Your task to perform on an android device: turn off data saver in the chrome app Image 0: 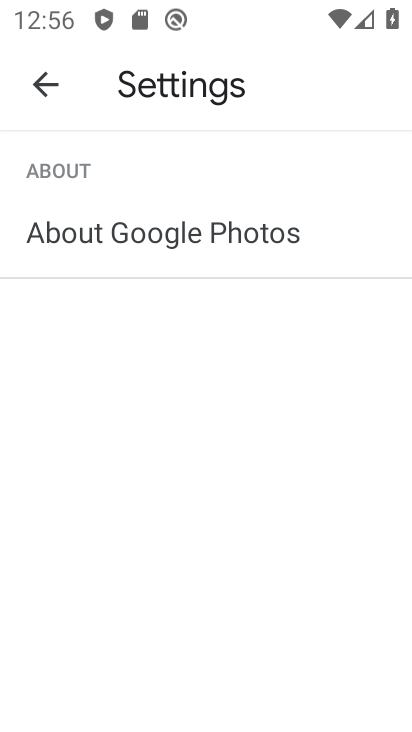
Step 0: press home button
Your task to perform on an android device: turn off data saver in the chrome app Image 1: 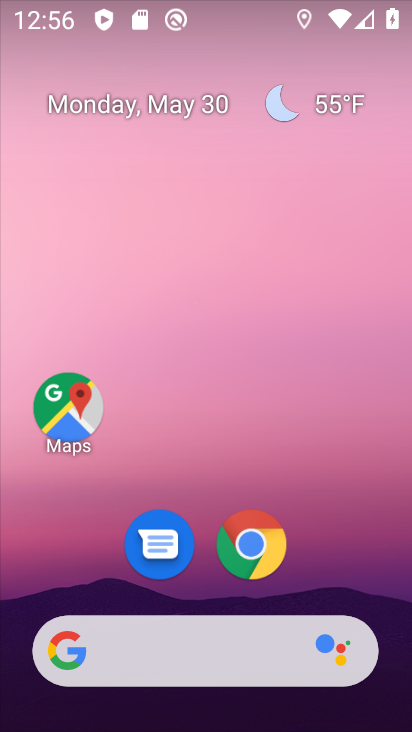
Step 1: click (261, 549)
Your task to perform on an android device: turn off data saver in the chrome app Image 2: 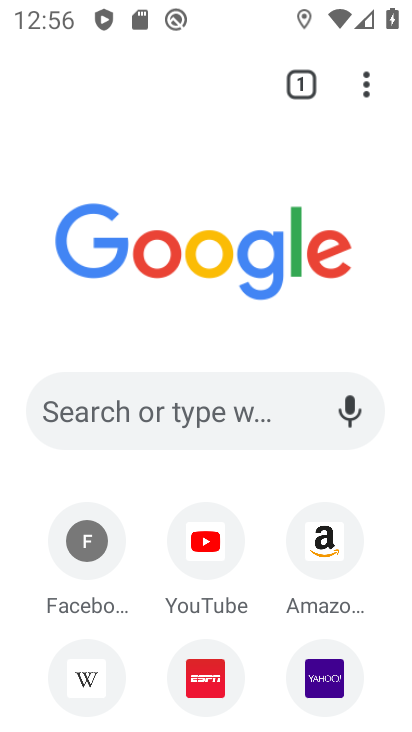
Step 2: click (385, 84)
Your task to perform on an android device: turn off data saver in the chrome app Image 3: 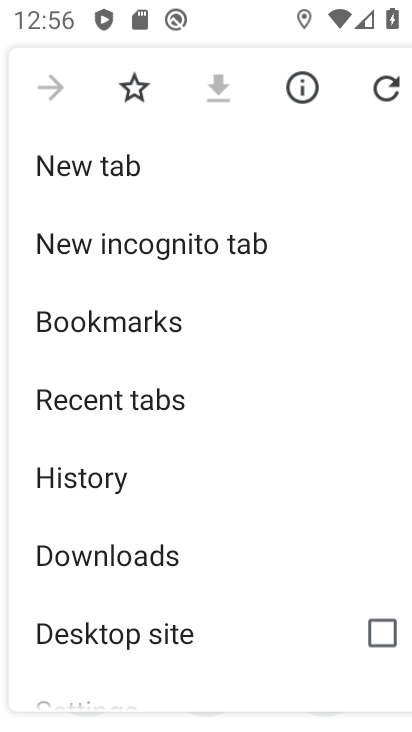
Step 3: drag from (291, 474) to (287, 115)
Your task to perform on an android device: turn off data saver in the chrome app Image 4: 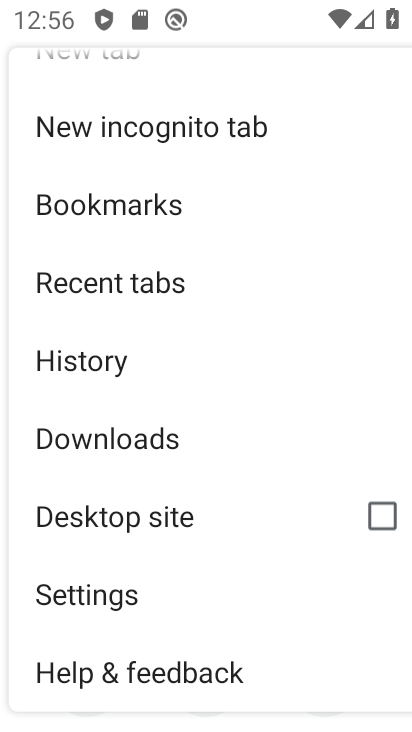
Step 4: click (188, 604)
Your task to perform on an android device: turn off data saver in the chrome app Image 5: 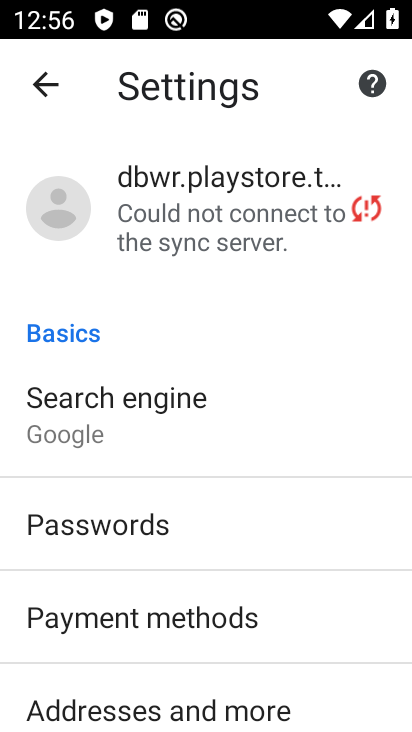
Step 5: drag from (195, 582) to (194, 192)
Your task to perform on an android device: turn off data saver in the chrome app Image 6: 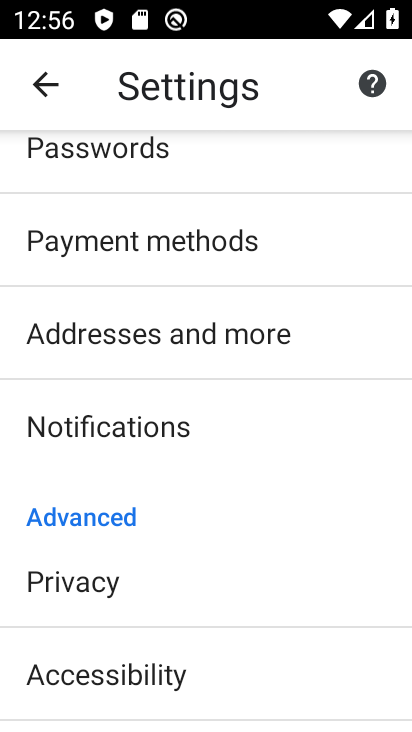
Step 6: drag from (198, 617) to (180, 298)
Your task to perform on an android device: turn off data saver in the chrome app Image 7: 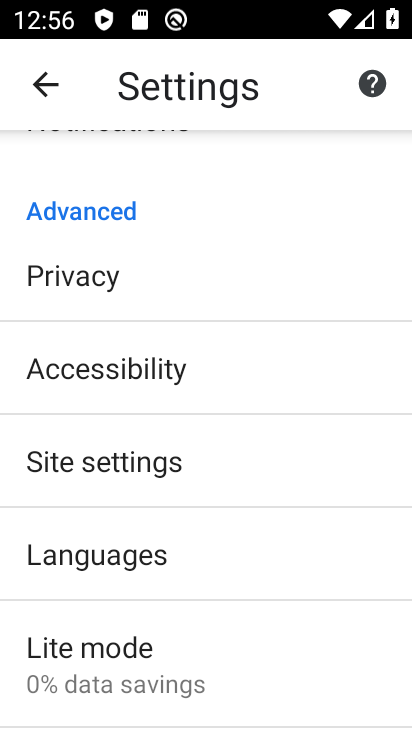
Step 7: click (152, 655)
Your task to perform on an android device: turn off data saver in the chrome app Image 8: 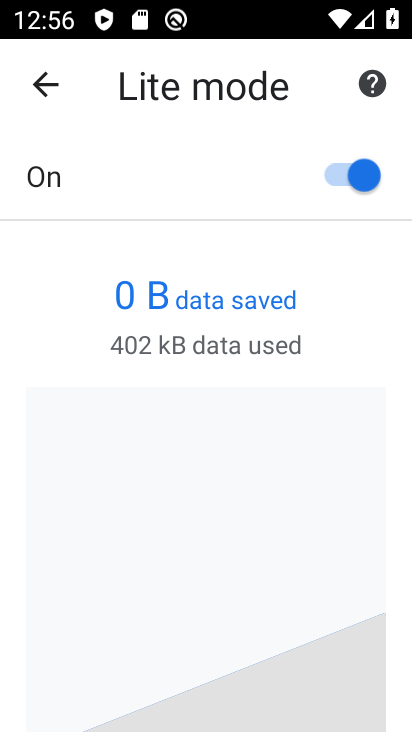
Step 8: click (359, 164)
Your task to perform on an android device: turn off data saver in the chrome app Image 9: 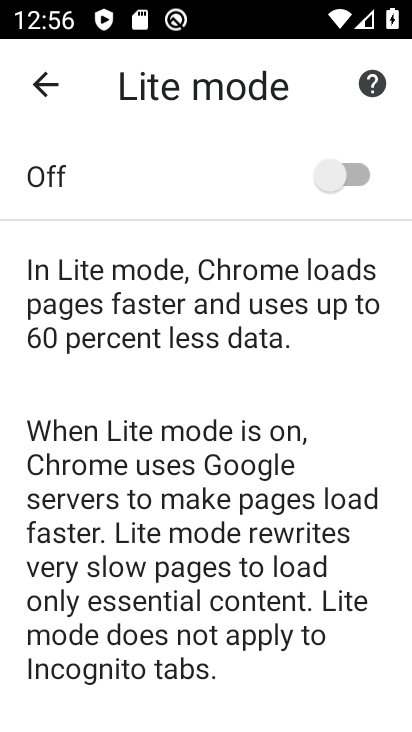
Step 9: task complete